Your task to perform on an android device: turn on the 12-hour format for clock Image 0: 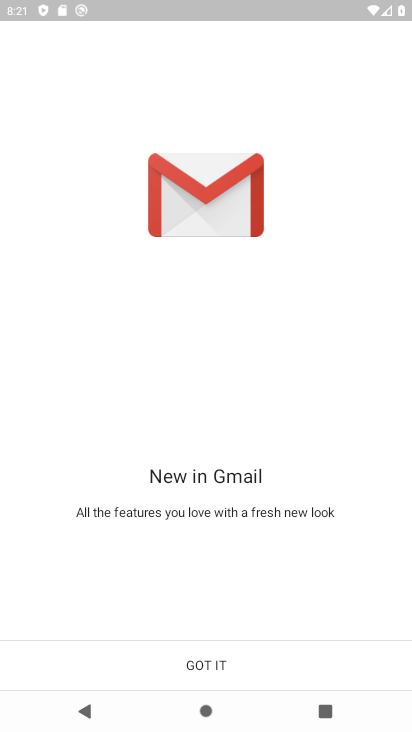
Step 0: press home button
Your task to perform on an android device: turn on the 12-hour format for clock Image 1: 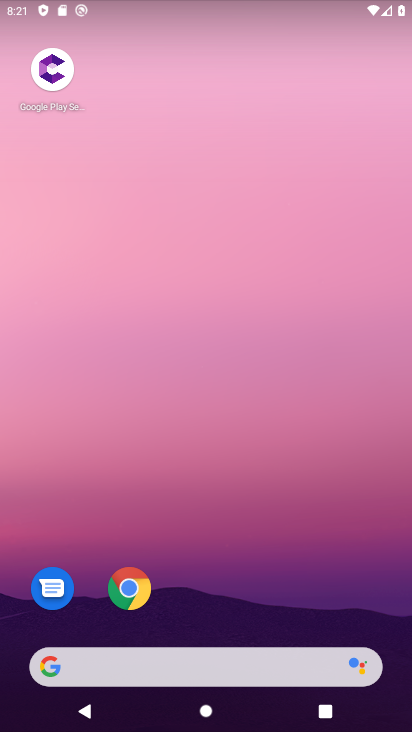
Step 1: drag from (246, 602) to (258, 111)
Your task to perform on an android device: turn on the 12-hour format for clock Image 2: 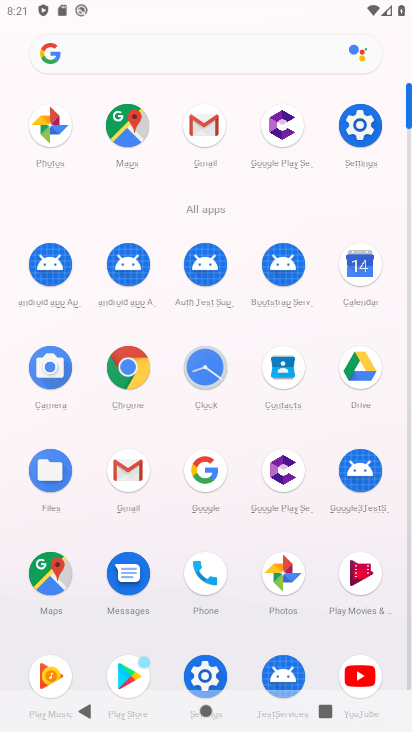
Step 2: click (211, 363)
Your task to perform on an android device: turn on the 12-hour format for clock Image 3: 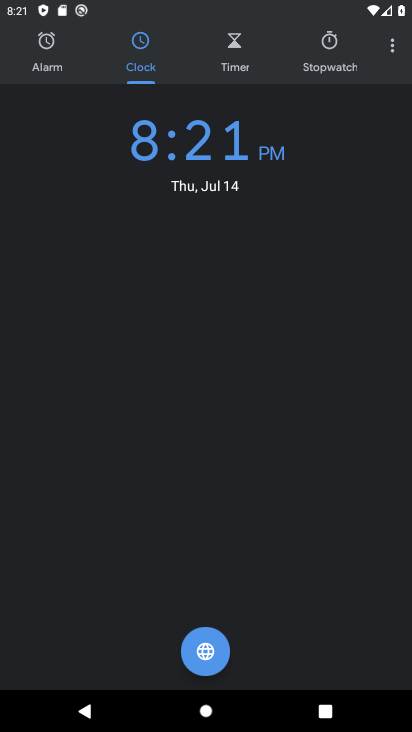
Step 3: click (391, 44)
Your task to perform on an android device: turn on the 12-hour format for clock Image 4: 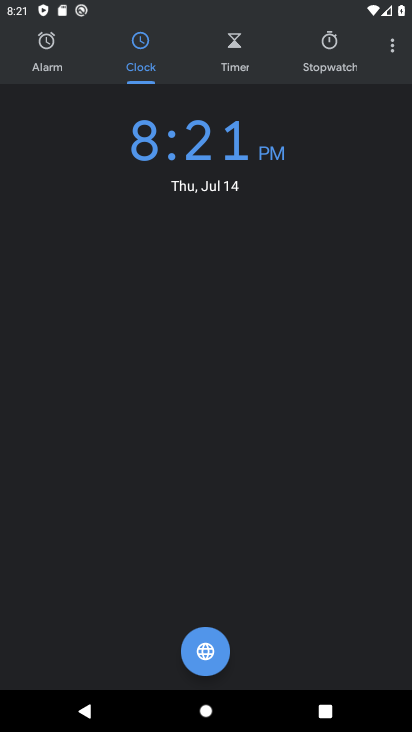
Step 4: click (387, 44)
Your task to perform on an android device: turn on the 12-hour format for clock Image 5: 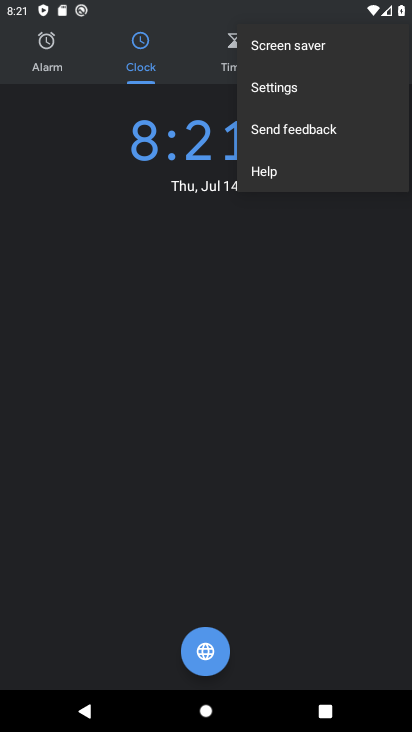
Step 5: click (258, 100)
Your task to perform on an android device: turn on the 12-hour format for clock Image 6: 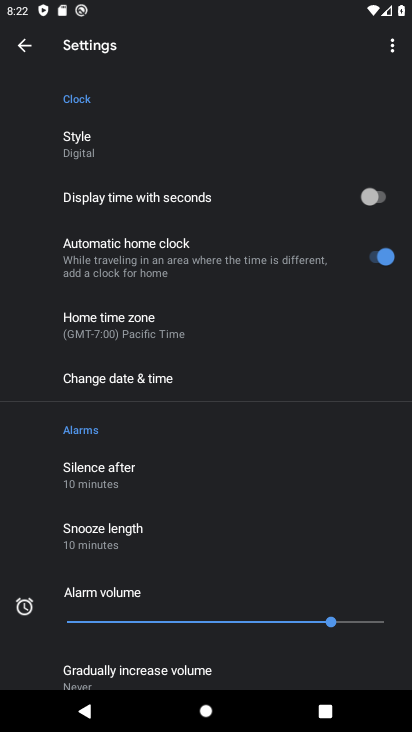
Step 6: task complete